Your task to perform on an android device: allow notifications from all sites in the chrome app Image 0: 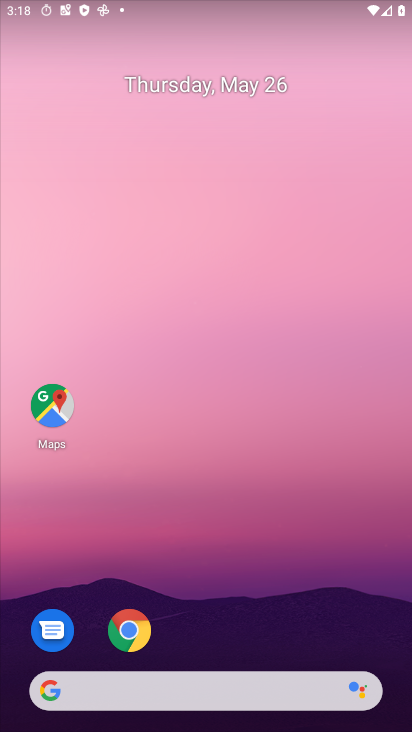
Step 0: click (131, 625)
Your task to perform on an android device: allow notifications from all sites in the chrome app Image 1: 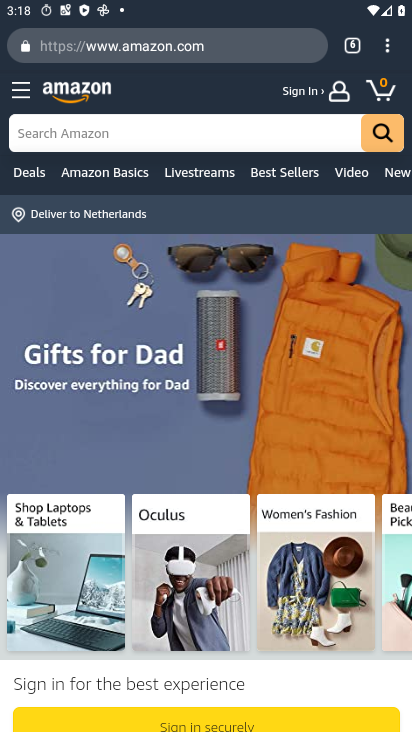
Step 1: click (388, 23)
Your task to perform on an android device: allow notifications from all sites in the chrome app Image 2: 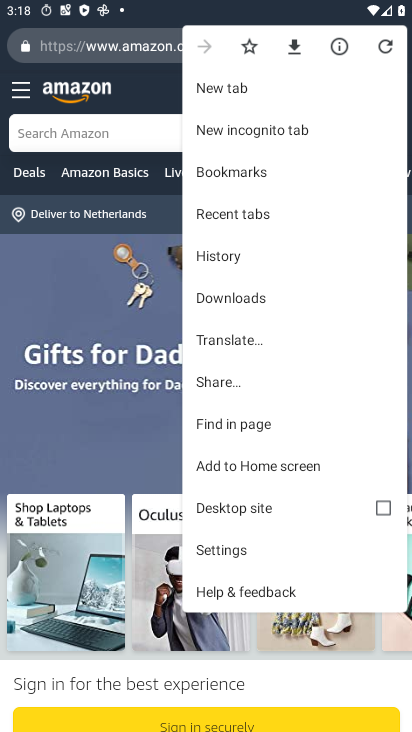
Step 2: click (259, 541)
Your task to perform on an android device: allow notifications from all sites in the chrome app Image 3: 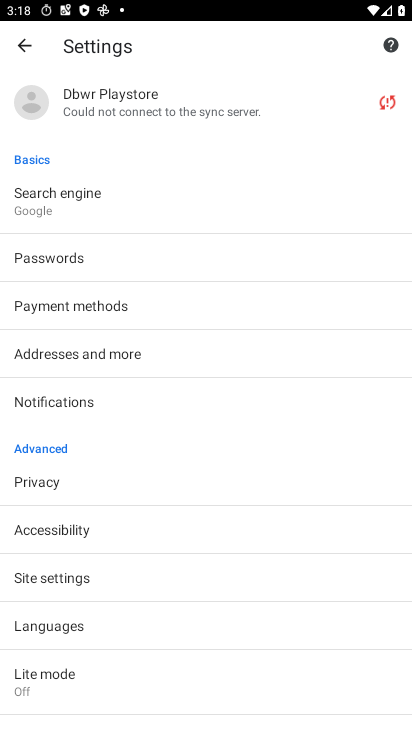
Step 3: click (93, 407)
Your task to perform on an android device: allow notifications from all sites in the chrome app Image 4: 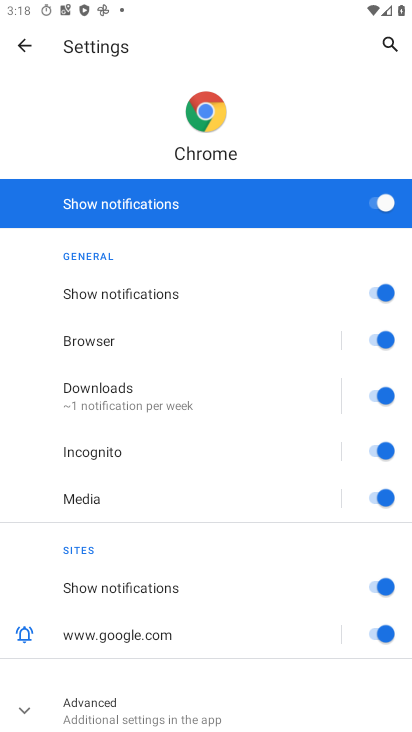
Step 4: drag from (128, 623) to (169, 303)
Your task to perform on an android device: allow notifications from all sites in the chrome app Image 5: 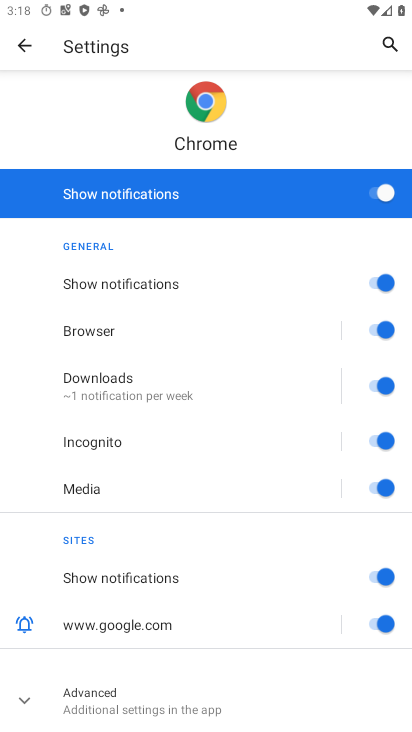
Step 5: click (147, 700)
Your task to perform on an android device: allow notifications from all sites in the chrome app Image 6: 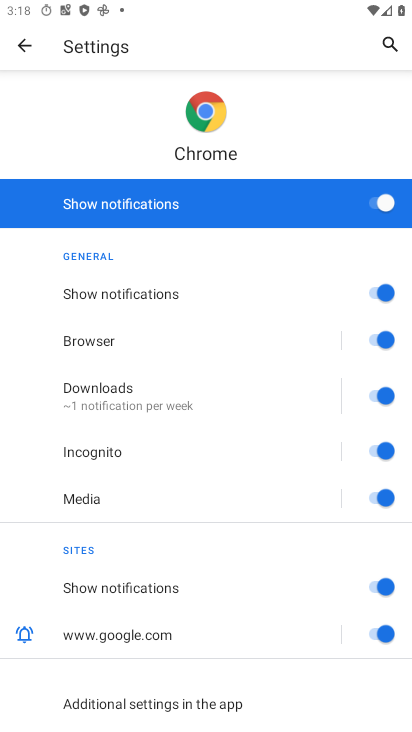
Step 6: task complete